Your task to perform on an android device: Find coffee shops on Maps Image 0: 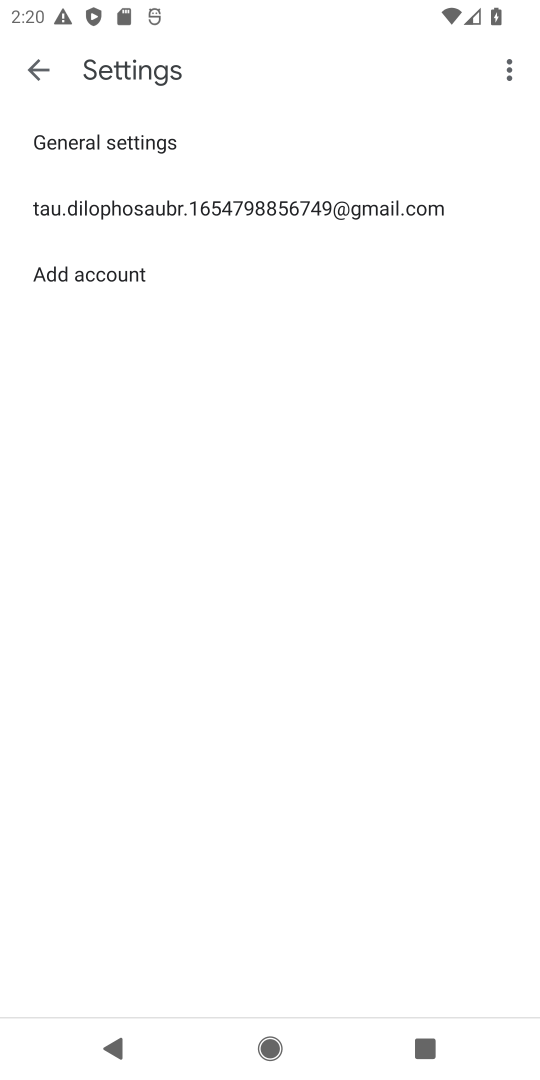
Step 0: press home button
Your task to perform on an android device: Find coffee shops on Maps Image 1: 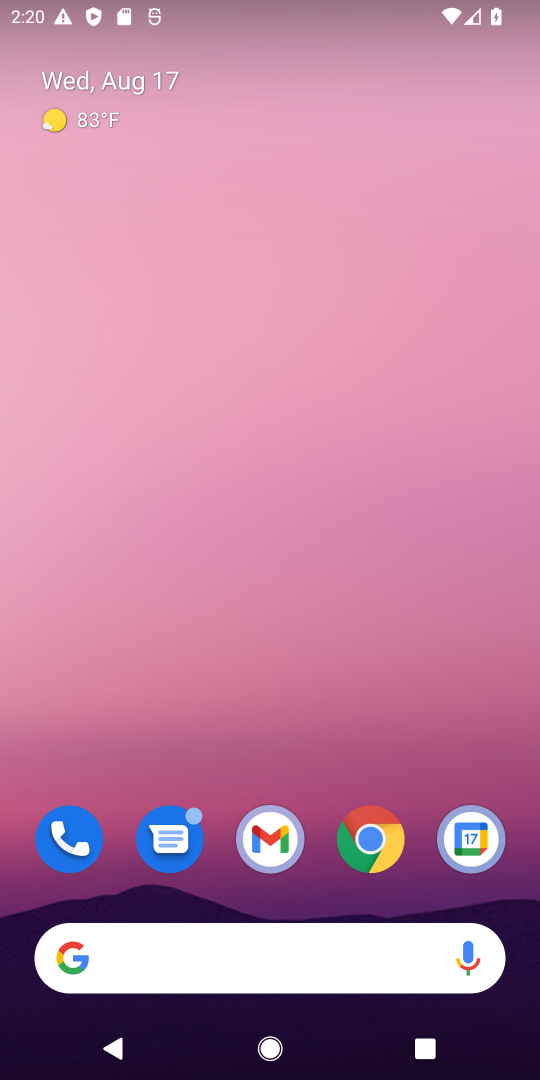
Step 1: drag from (335, 914) to (285, 19)
Your task to perform on an android device: Find coffee shops on Maps Image 2: 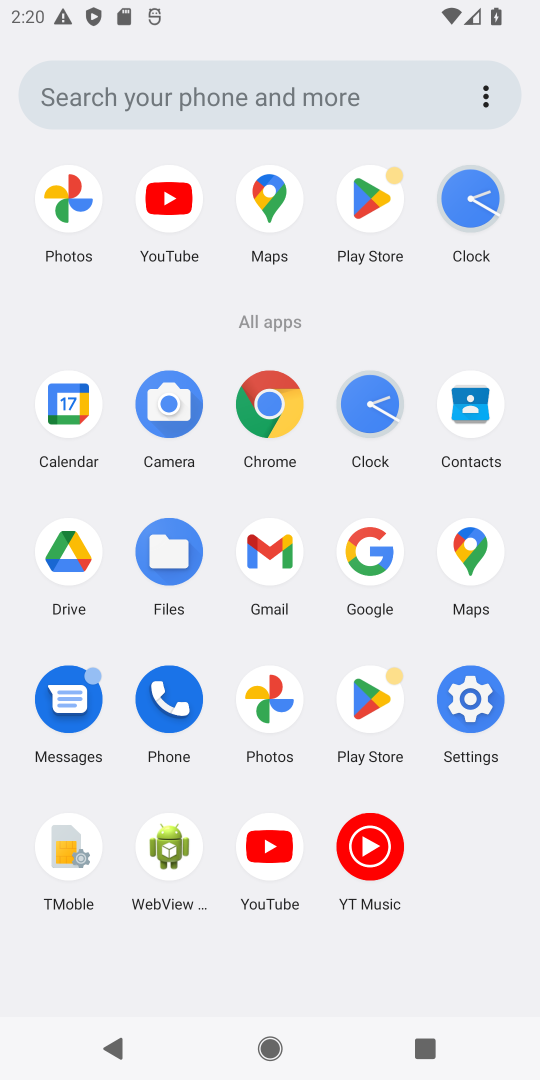
Step 2: click (483, 543)
Your task to perform on an android device: Find coffee shops on Maps Image 3: 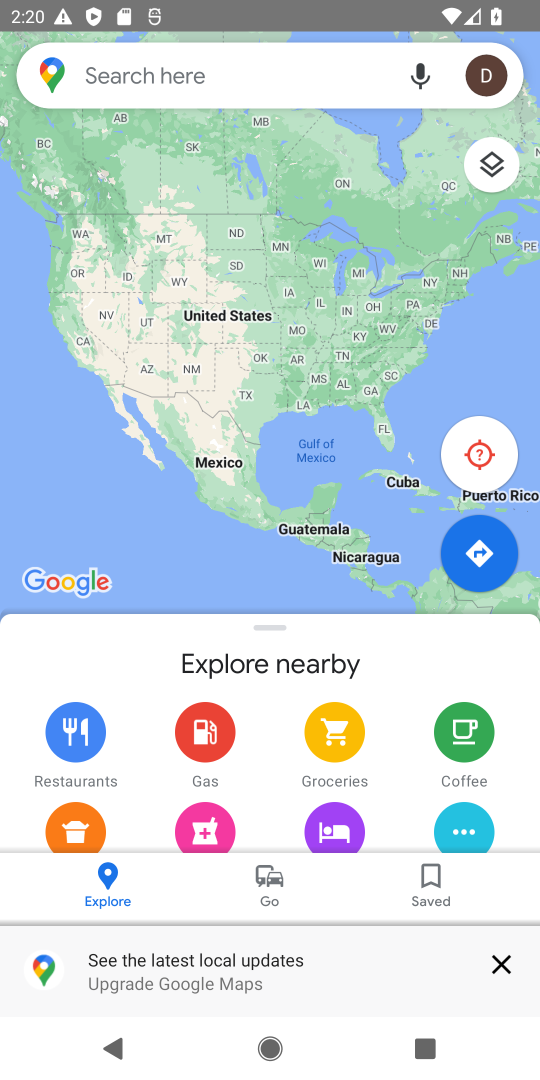
Step 3: click (125, 78)
Your task to perform on an android device: Find coffee shops on Maps Image 4: 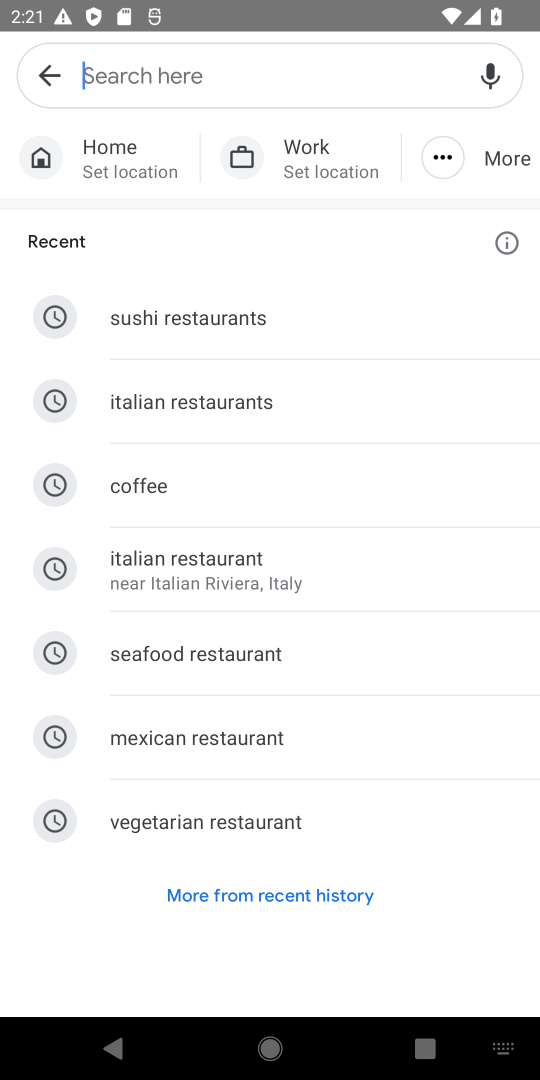
Step 4: type "coffee shop"
Your task to perform on an android device: Find coffee shops on Maps Image 5: 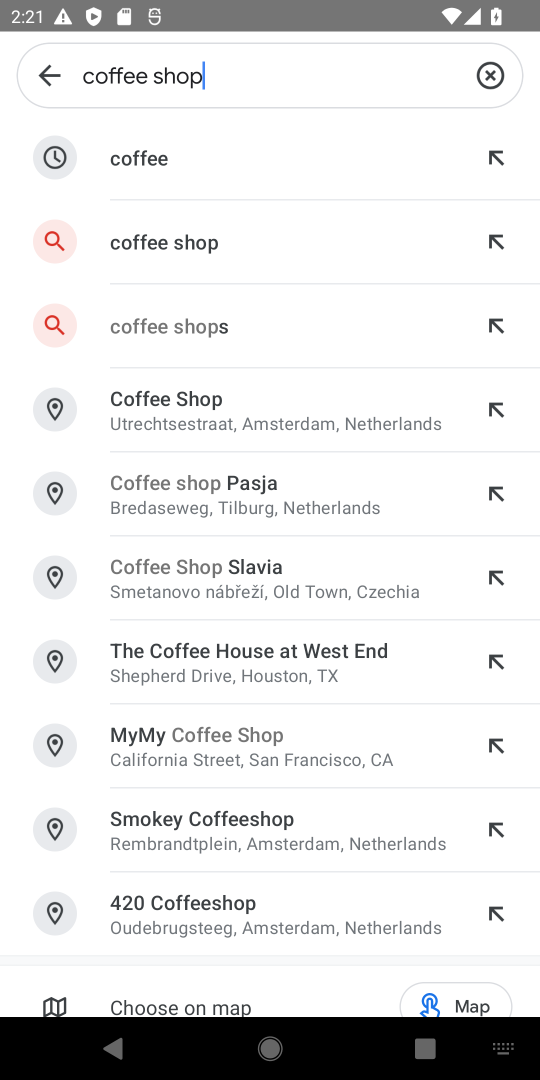
Step 5: click (195, 249)
Your task to perform on an android device: Find coffee shops on Maps Image 6: 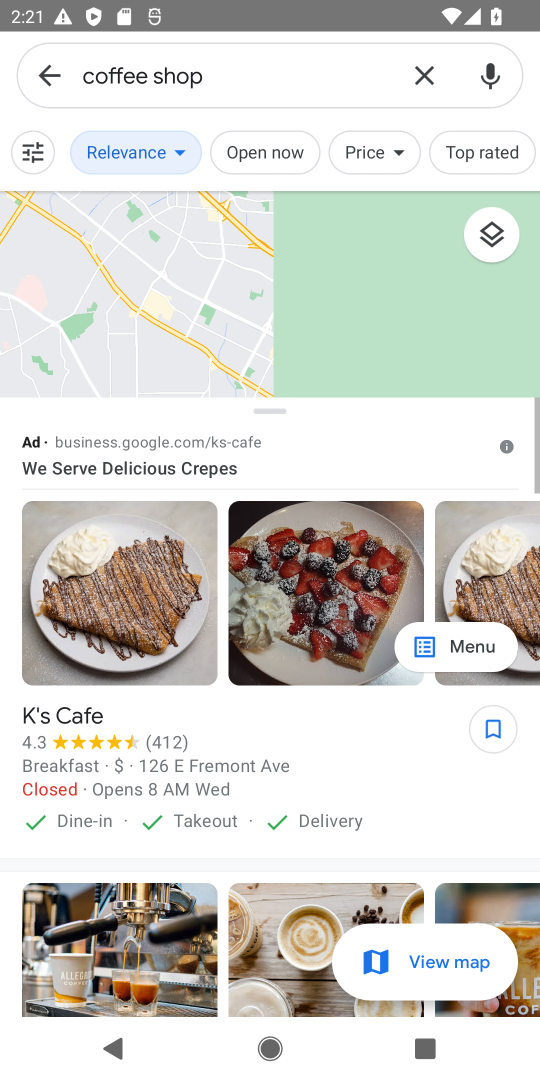
Step 6: task complete